Your task to perform on an android device: Clear the cart on newegg. Add razer huntsman to the cart on newegg, then select checkout. Image 0: 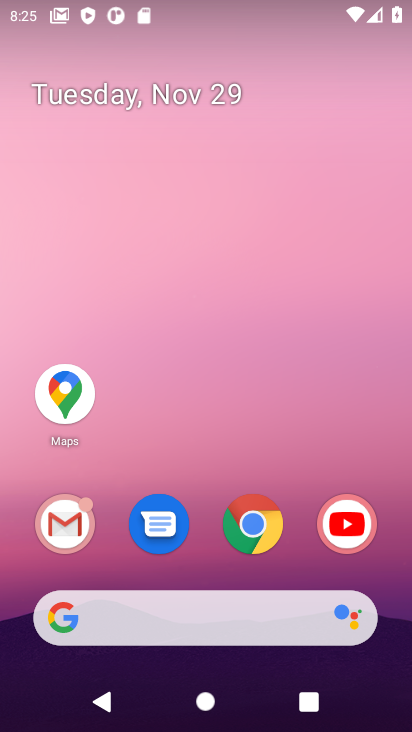
Step 0: click (262, 526)
Your task to perform on an android device: Clear the cart on newegg. Add razer huntsman to the cart on newegg, then select checkout. Image 1: 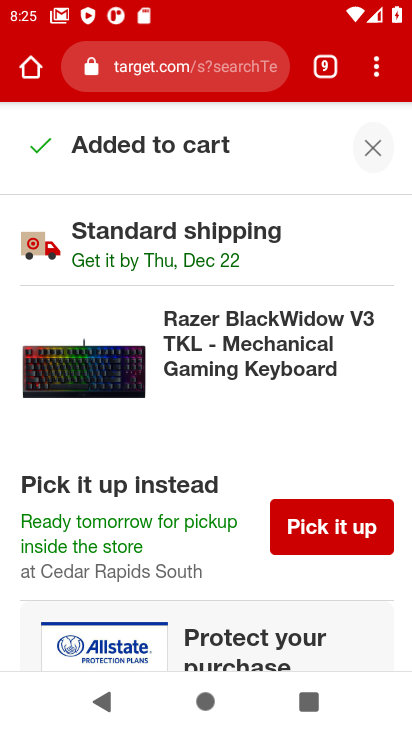
Step 1: click (172, 76)
Your task to perform on an android device: Clear the cart on newegg. Add razer huntsman to the cart on newegg, then select checkout. Image 2: 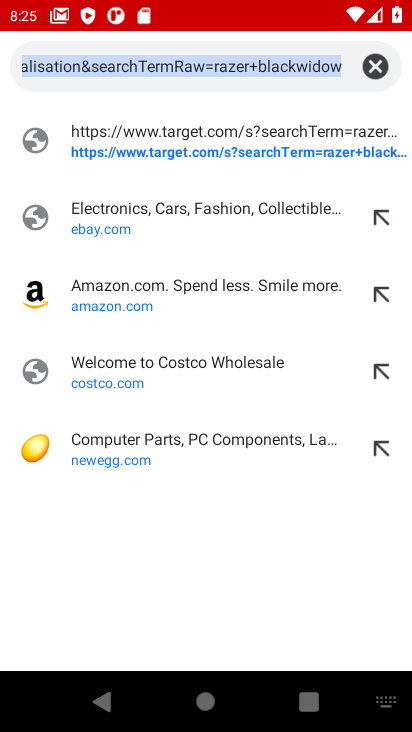
Step 2: click (52, 446)
Your task to perform on an android device: Clear the cart on newegg. Add razer huntsman to the cart on newegg, then select checkout. Image 3: 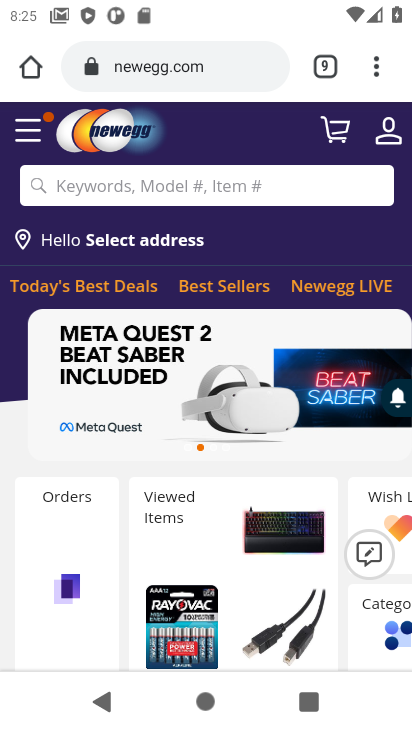
Step 3: click (339, 128)
Your task to perform on an android device: Clear the cart on newegg. Add razer huntsman to the cart on newegg, then select checkout. Image 4: 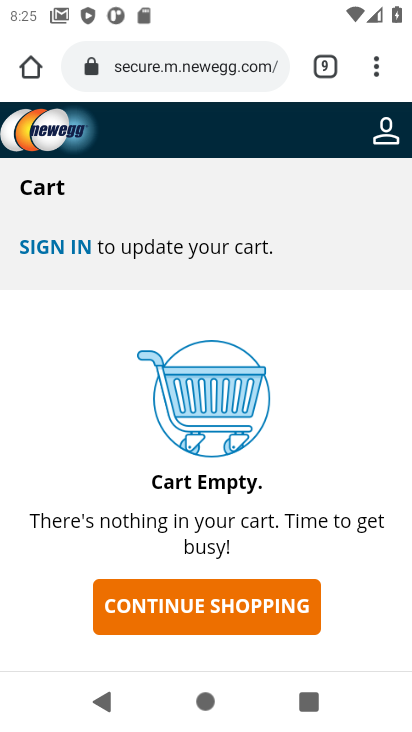
Step 4: click (178, 600)
Your task to perform on an android device: Clear the cart on newegg. Add razer huntsman to the cart on newegg, then select checkout. Image 5: 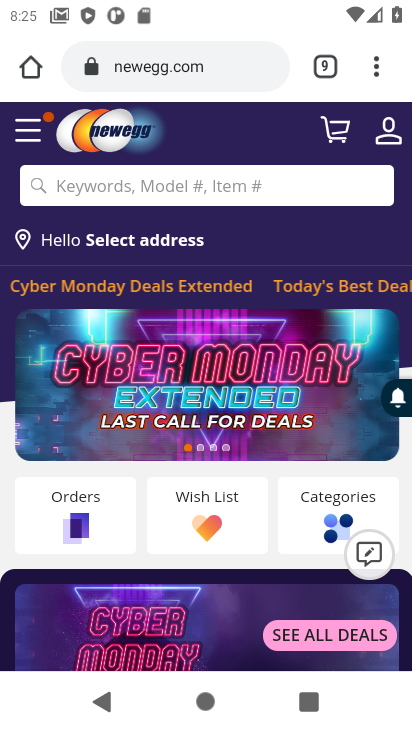
Step 5: click (147, 182)
Your task to perform on an android device: Clear the cart on newegg. Add razer huntsman to the cart on newegg, then select checkout. Image 6: 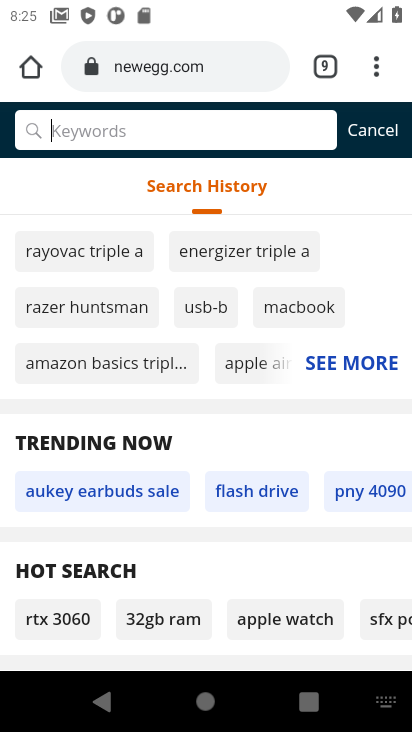
Step 6: type "razer huntsman"
Your task to perform on an android device: Clear the cart on newegg. Add razer huntsman to the cart on newegg, then select checkout. Image 7: 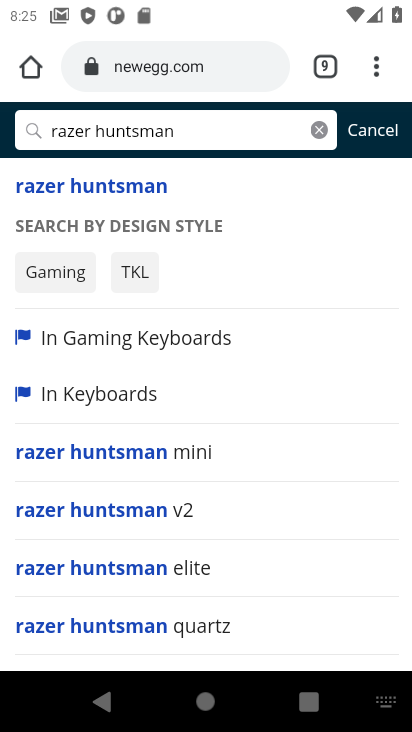
Step 7: click (91, 193)
Your task to perform on an android device: Clear the cart on newegg. Add razer huntsman to the cart on newegg, then select checkout. Image 8: 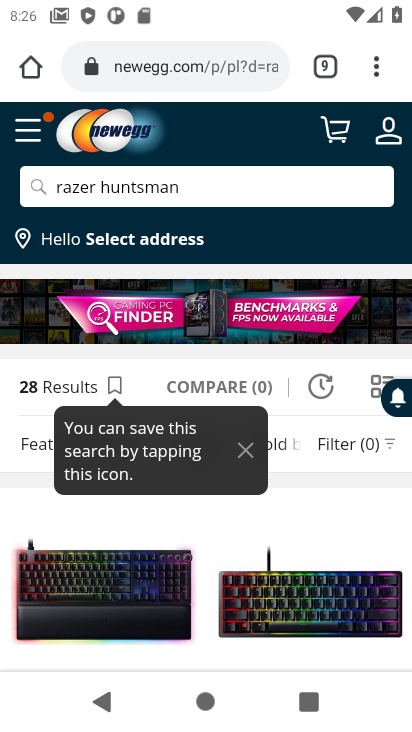
Step 8: drag from (46, 569) to (71, 307)
Your task to perform on an android device: Clear the cart on newegg. Add razer huntsman to the cart on newegg, then select checkout. Image 9: 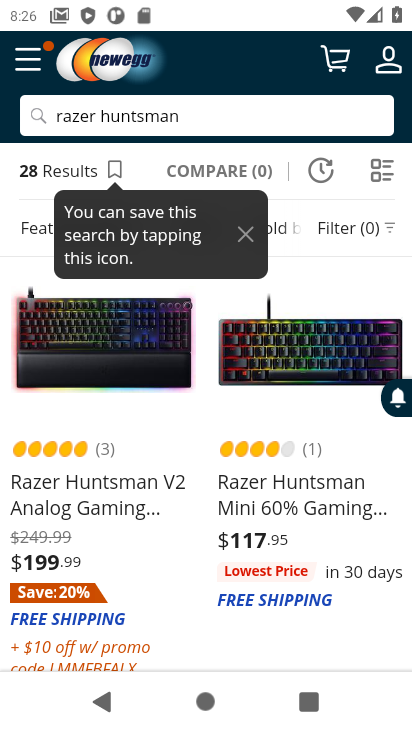
Step 9: click (76, 359)
Your task to perform on an android device: Clear the cart on newegg. Add razer huntsman to the cart on newegg, then select checkout. Image 10: 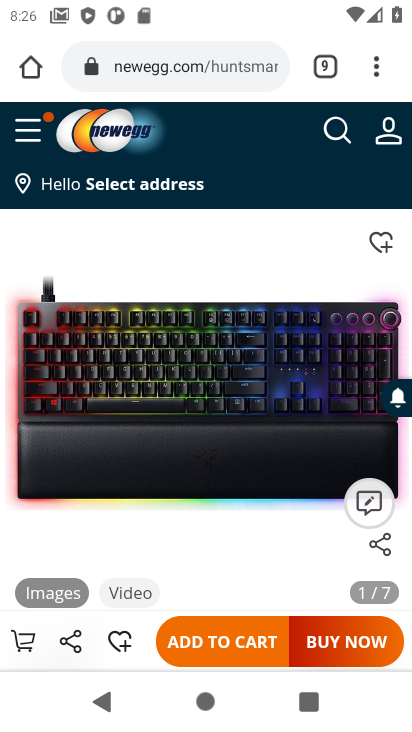
Step 10: click (216, 639)
Your task to perform on an android device: Clear the cart on newegg. Add razer huntsman to the cart on newegg, then select checkout. Image 11: 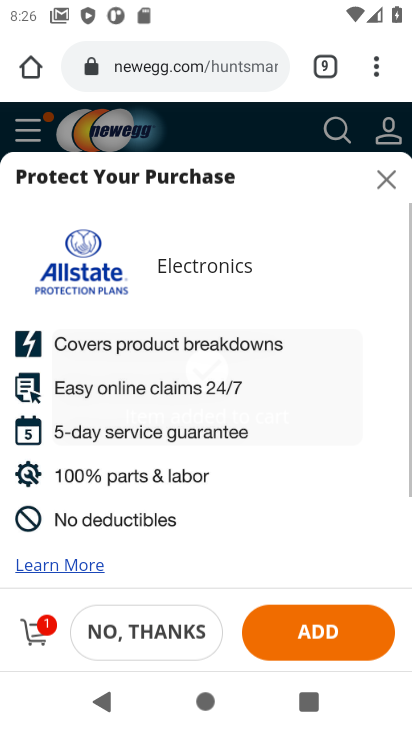
Step 11: click (33, 642)
Your task to perform on an android device: Clear the cart on newegg. Add razer huntsman to the cart on newegg, then select checkout. Image 12: 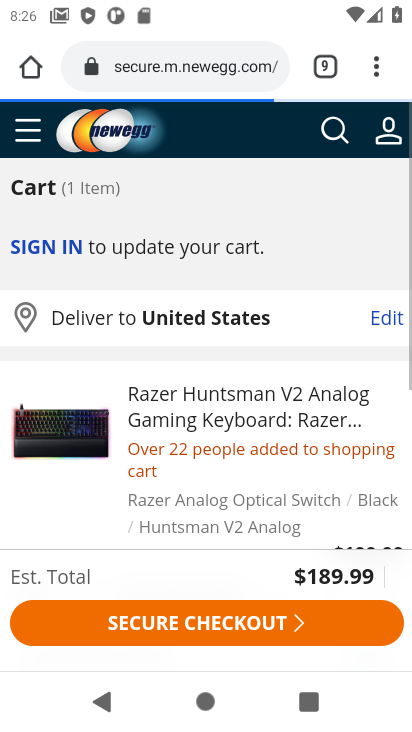
Step 12: click (33, 642)
Your task to perform on an android device: Clear the cart on newegg. Add razer huntsman to the cart on newegg, then select checkout. Image 13: 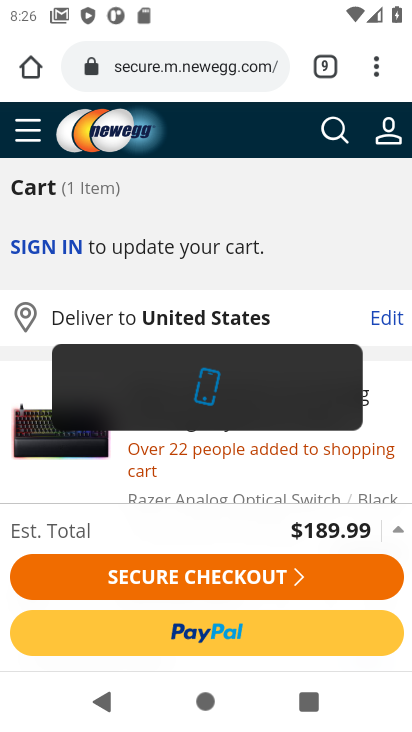
Step 13: click (183, 579)
Your task to perform on an android device: Clear the cart on newegg. Add razer huntsman to the cart on newegg, then select checkout. Image 14: 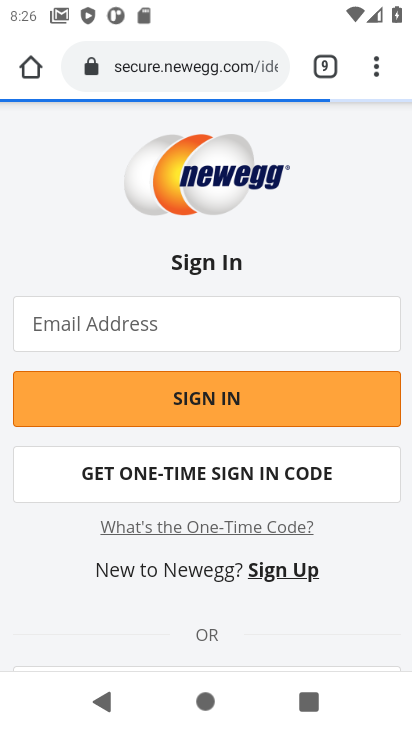
Step 14: task complete